Your task to perform on an android device: Open eBay Image 0: 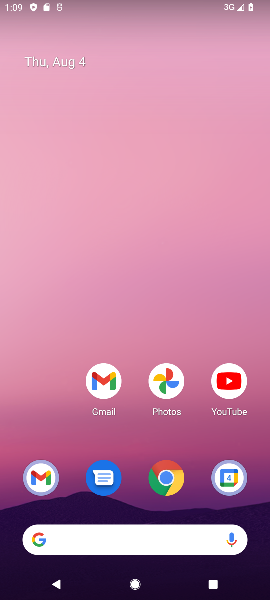
Step 0: click (152, 480)
Your task to perform on an android device: Open eBay Image 1: 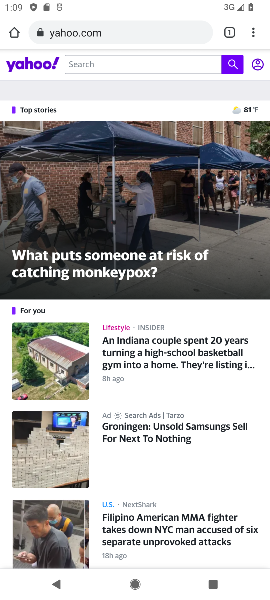
Step 1: click (106, 33)
Your task to perform on an android device: Open eBay Image 2: 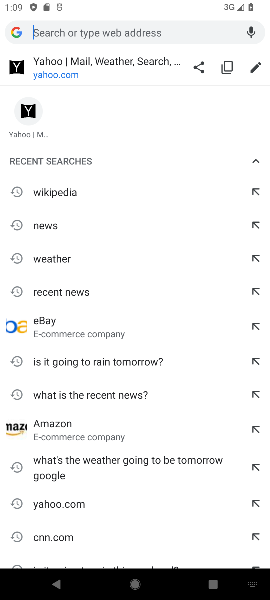
Step 2: type "eBay"
Your task to perform on an android device: Open eBay Image 3: 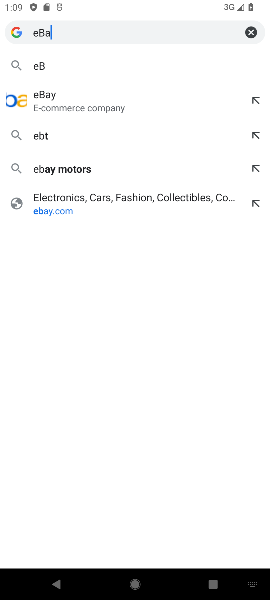
Step 3: type ""
Your task to perform on an android device: Open eBay Image 4: 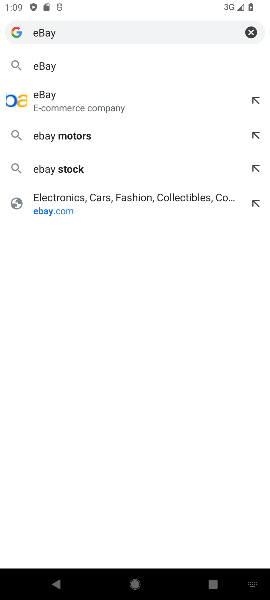
Step 4: click (59, 66)
Your task to perform on an android device: Open eBay Image 5: 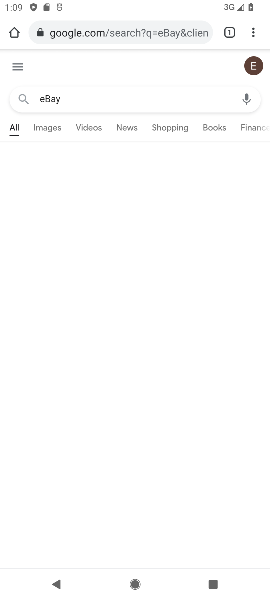
Step 5: task complete